Your task to perform on an android device: turn smart compose on in the gmail app Image 0: 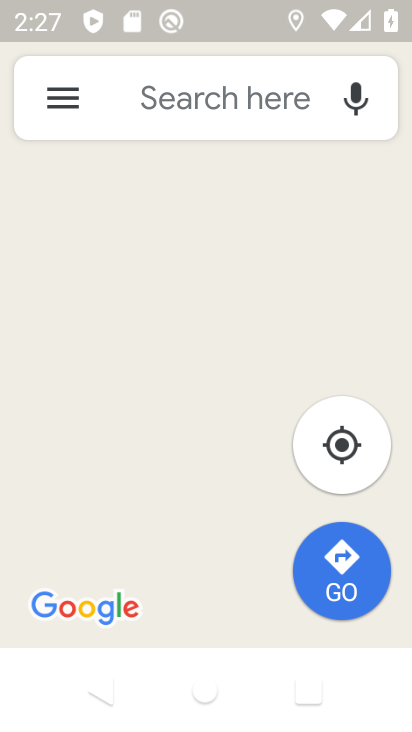
Step 0: drag from (243, 498) to (312, 6)
Your task to perform on an android device: turn smart compose on in the gmail app Image 1: 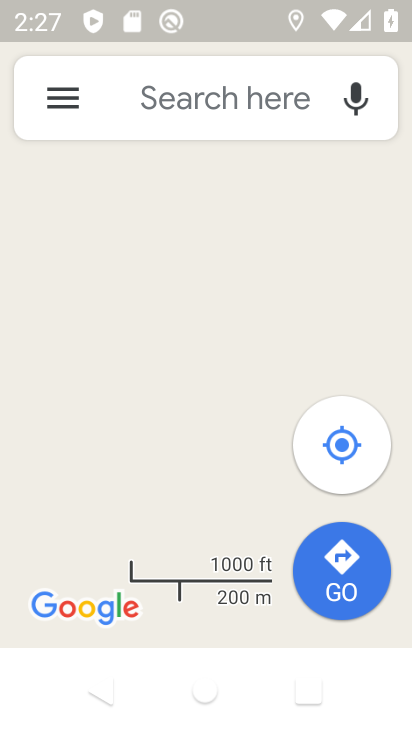
Step 1: press home button
Your task to perform on an android device: turn smart compose on in the gmail app Image 2: 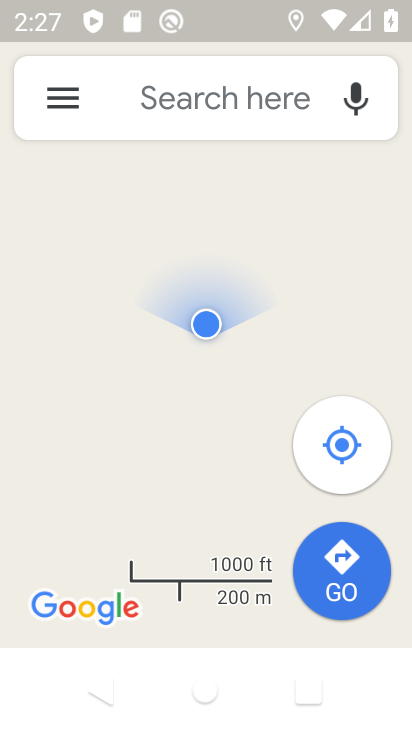
Step 2: drag from (312, 6) to (398, 495)
Your task to perform on an android device: turn smart compose on in the gmail app Image 3: 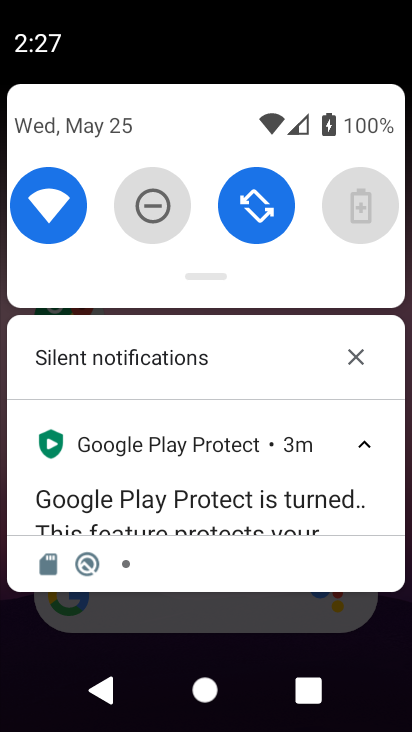
Step 3: press home button
Your task to perform on an android device: turn smart compose on in the gmail app Image 4: 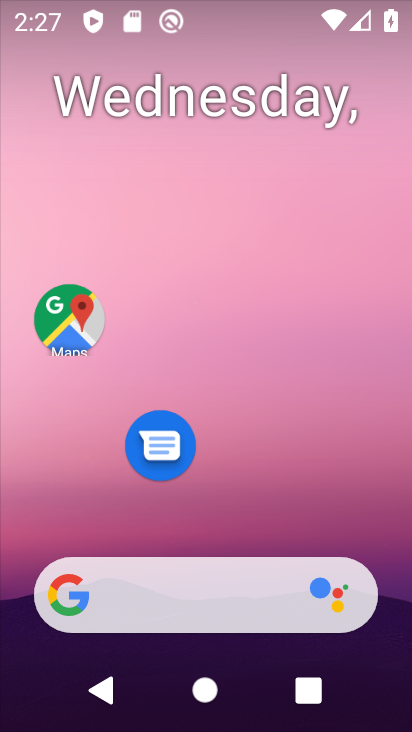
Step 4: drag from (224, 509) to (410, 428)
Your task to perform on an android device: turn smart compose on in the gmail app Image 5: 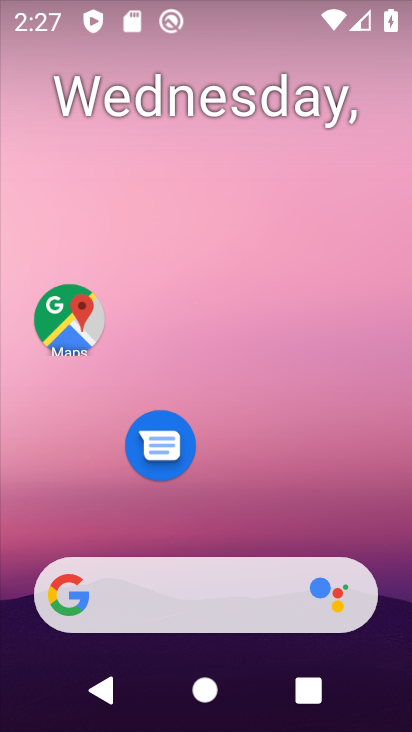
Step 5: drag from (202, 536) to (246, 87)
Your task to perform on an android device: turn smart compose on in the gmail app Image 6: 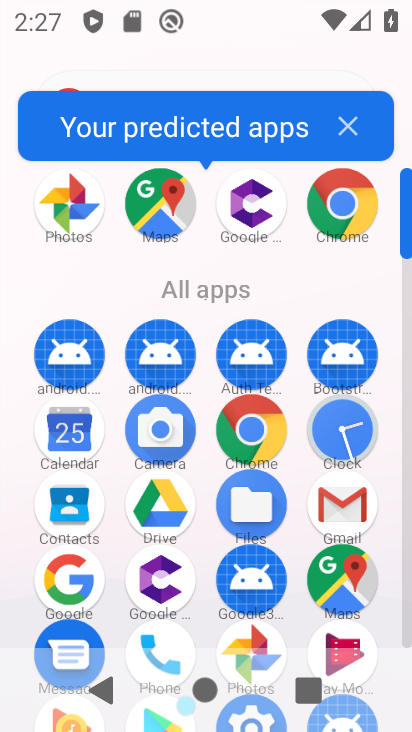
Step 6: click (342, 512)
Your task to perform on an android device: turn smart compose on in the gmail app Image 7: 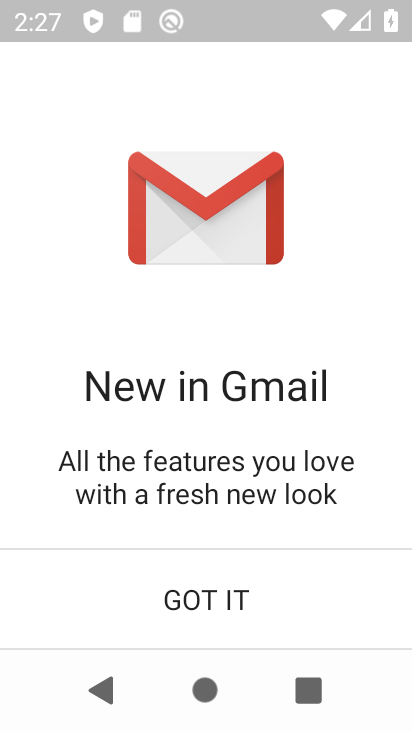
Step 7: click (219, 595)
Your task to perform on an android device: turn smart compose on in the gmail app Image 8: 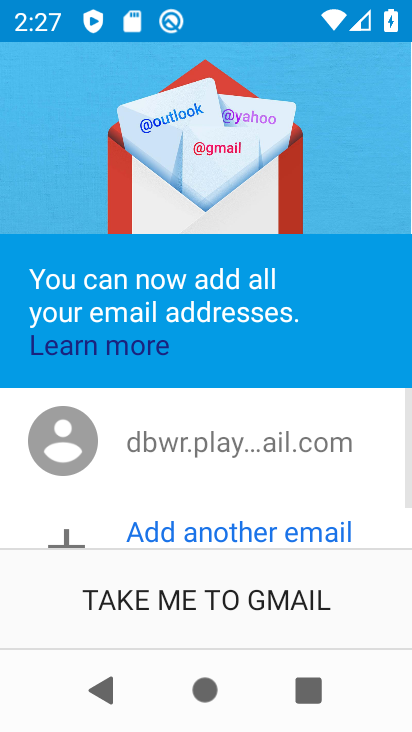
Step 8: click (219, 596)
Your task to perform on an android device: turn smart compose on in the gmail app Image 9: 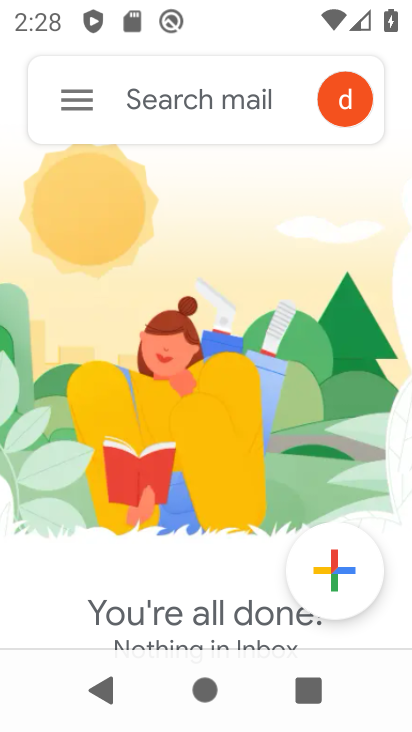
Step 9: click (78, 106)
Your task to perform on an android device: turn smart compose on in the gmail app Image 10: 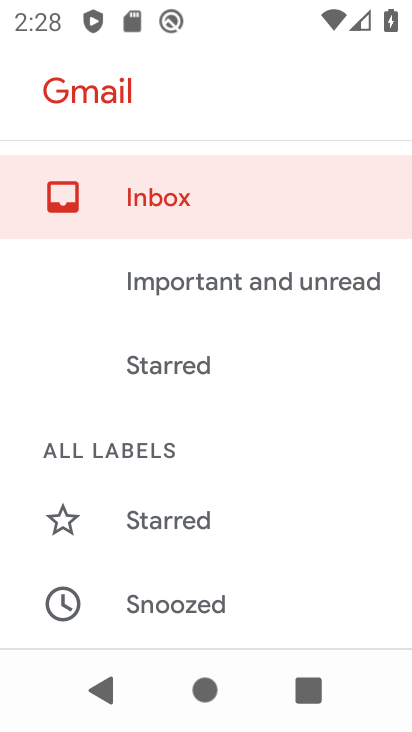
Step 10: drag from (233, 448) to (270, 341)
Your task to perform on an android device: turn smart compose on in the gmail app Image 11: 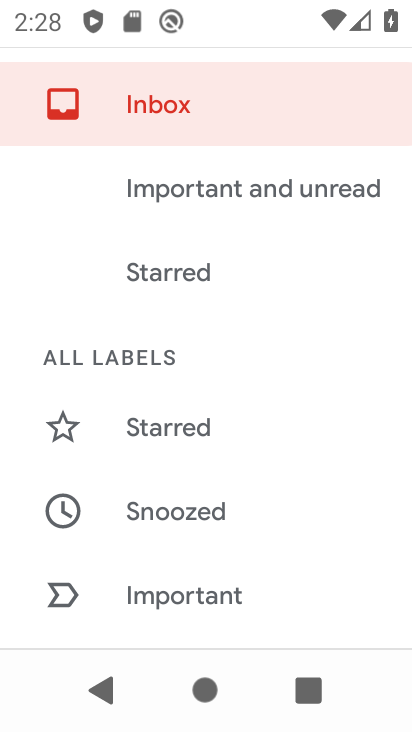
Step 11: drag from (219, 560) to (262, 259)
Your task to perform on an android device: turn smart compose on in the gmail app Image 12: 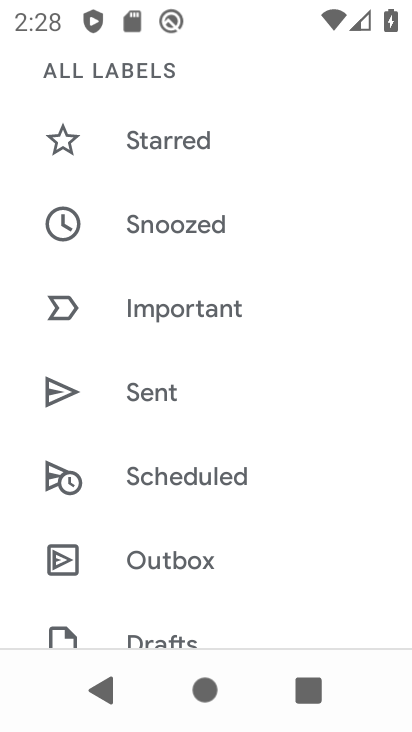
Step 12: drag from (253, 591) to (305, 276)
Your task to perform on an android device: turn smart compose on in the gmail app Image 13: 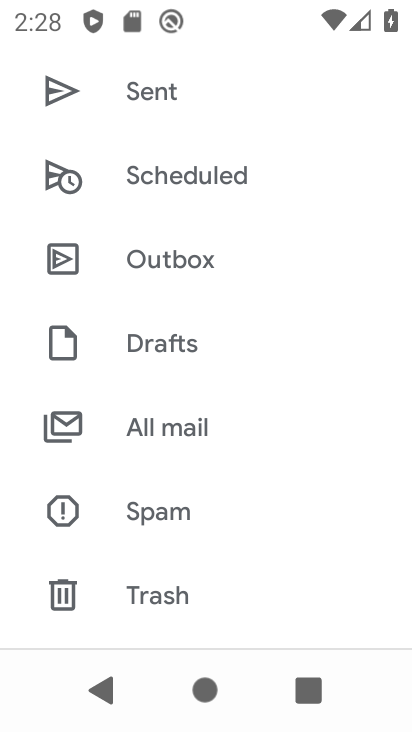
Step 13: drag from (214, 585) to (286, 185)
Your task to perform on an android device: turn smart compose on in the gmail app Image 14: 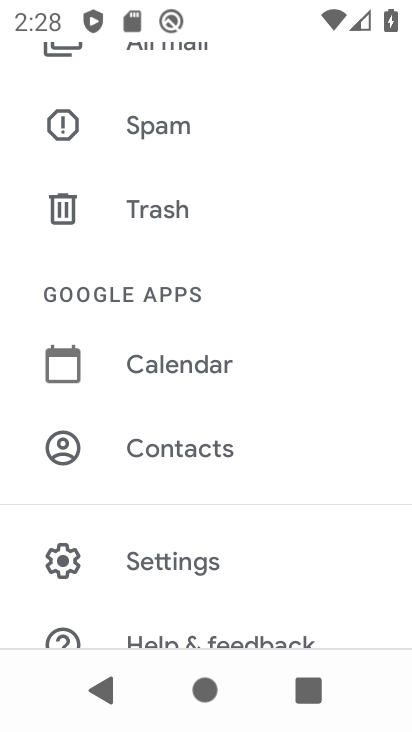
Step 14: click (173, 566)
Your task to perform on an android device: turn smart compose on in the gmail app Image 15: 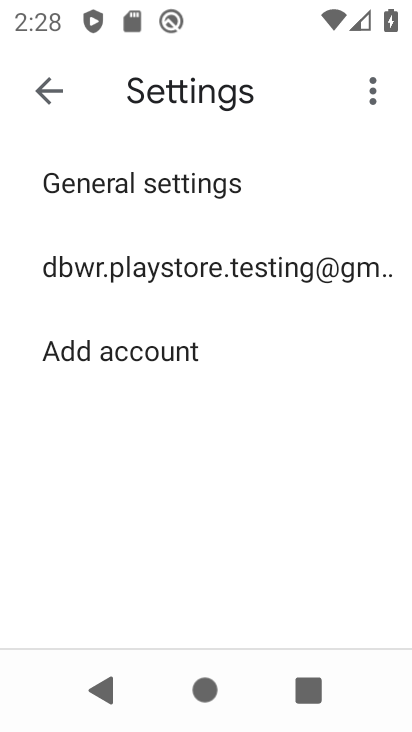
Step 15: click (193, 273)
Your task to perform on an android device: turn smart compose on in the gmail app Image 16: 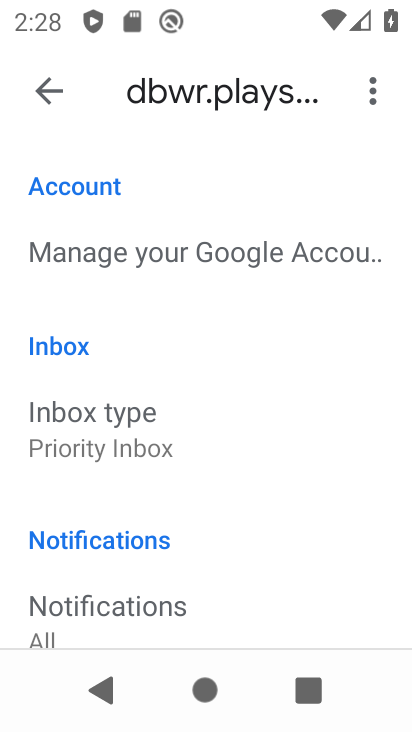
Step 16: task complete